Your task to perform on an android device: Go to Amazon Image 0: 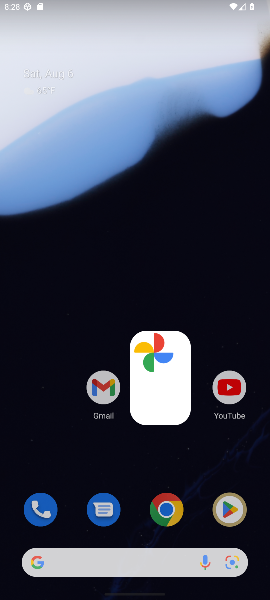
Step 0: press home button
Your task to perform on an android device: Go to Amazon Image 1: 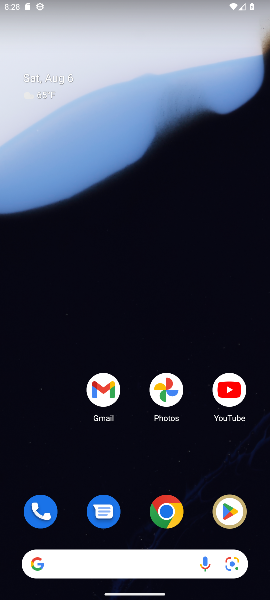
Step 1: click (169, 497)
Your task to perform on an android device: Go to Amazon Image 2: 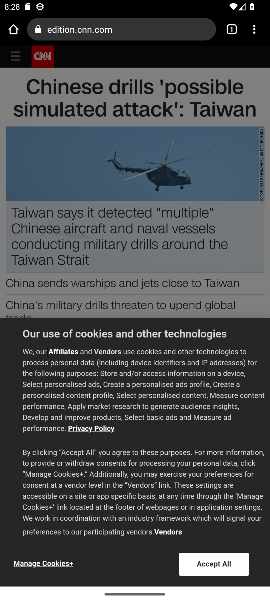
Step 2: press home button
Your task to perform on an android device: Go to Amazon Image 3: 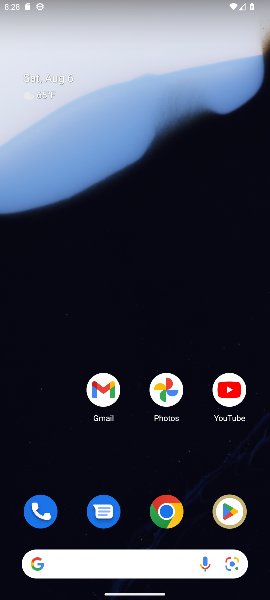
Step 3: click (170, 515)
Your task to perform on an android device: Go to Amazon Image 4: 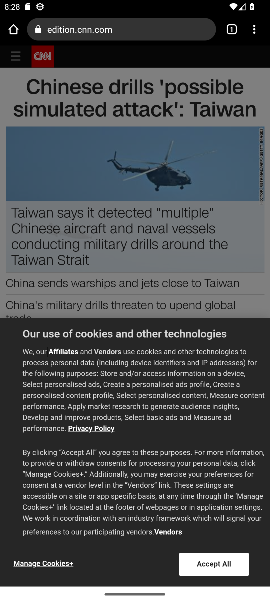
Step 4: click (75, 30)
Your task to perform on an android device: Go to Amazon Image 5: 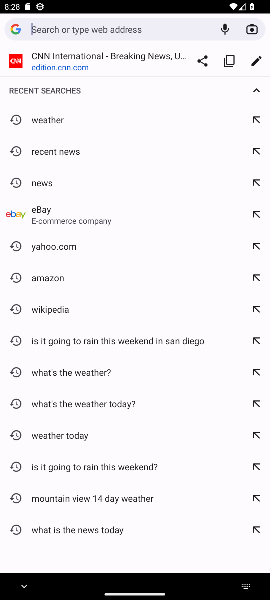
Step 5: type "Amazon"
Your task to perform on an android device: Go to Amazon Image 6: 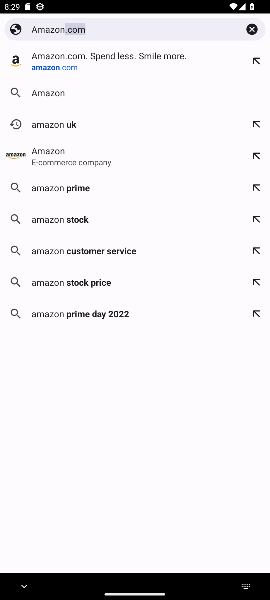
Step 6: click (102, 61)
Your task to perform on an android device: Go to Amazon Image 7: 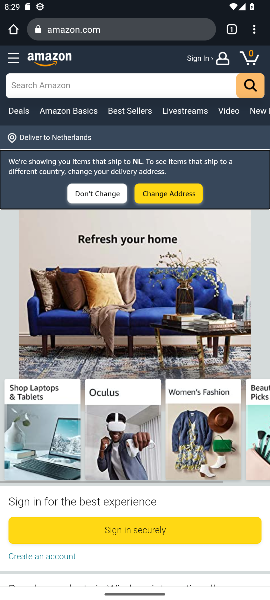
Step 7: task complete